Your task to perform on an android device: all mails in gmail Image 0: 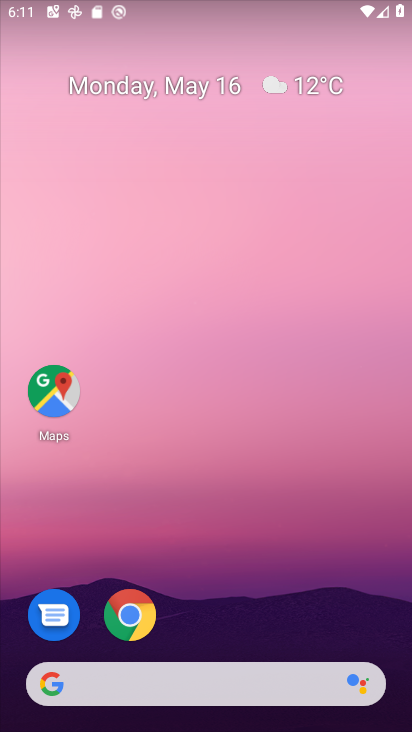
Step 0: drag from (218, 394) to (238, 236)
Your task to perform on an android device: all mails in gmail Image 1: 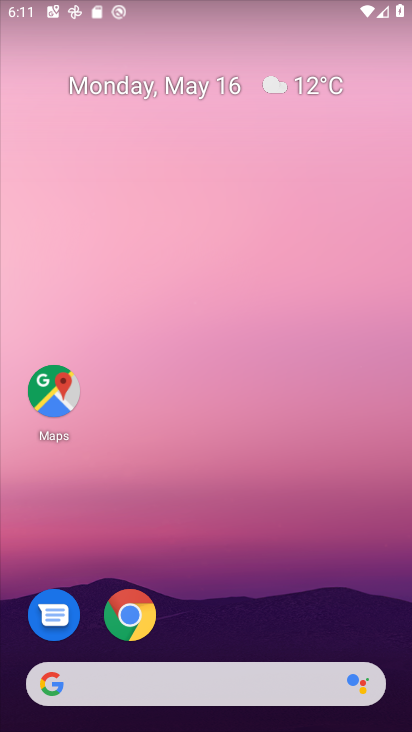
Step 1: drag from (211, 625) to (208, 253)
Your task to perform on an android device: all mails in gmail Image 2: 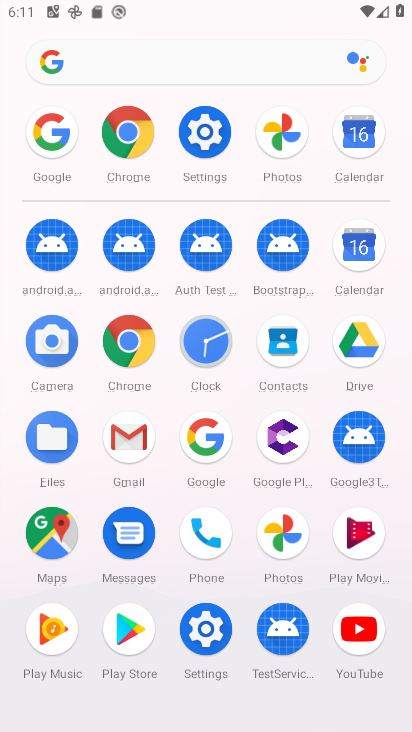
Step 2: click (129, 446)
Your task to perform on an android device: all mails in gmail Image 3: 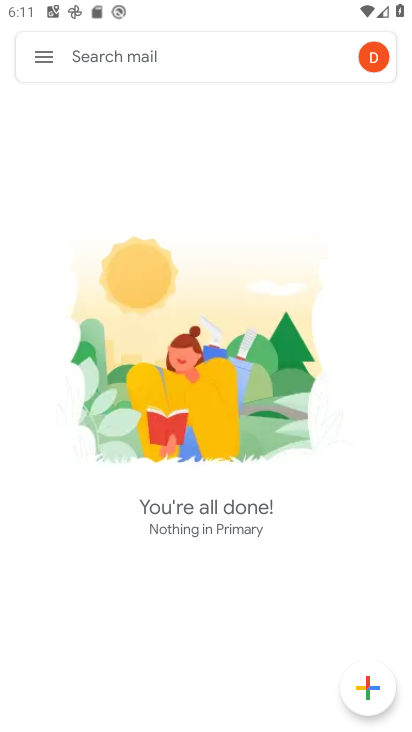
Step 3: click (32, 54)
Your task to perform on an android device: all mails in gmail Image 4: 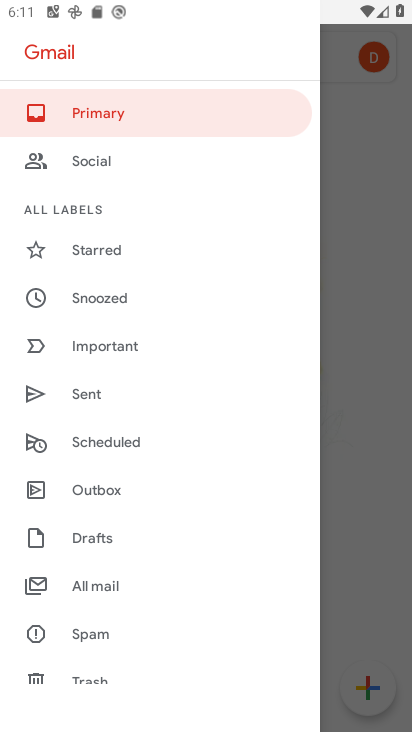
Step 4: click (96, 590)
Your task to perform on an android device: all mails in gmail Image 5: 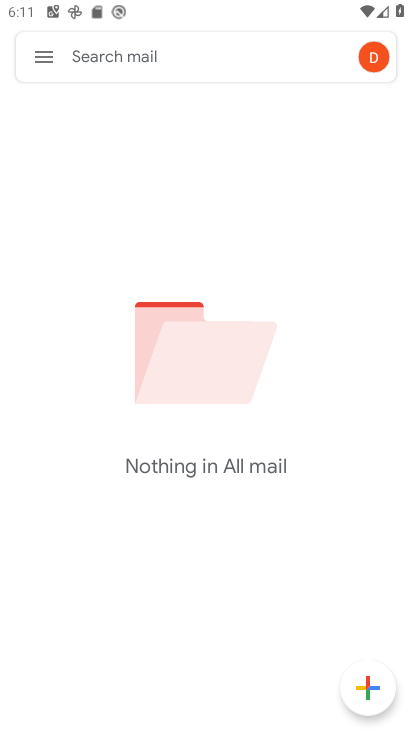
Step 5: task complete